Your task to perform on an android device: Search for the best coffee tables on Crate & Barrel Image 0: 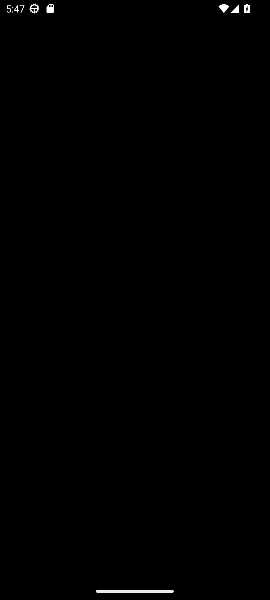
Step 0: press home button
Your task to perform on an android device: Search for the best coffee tables on Crate & Barrel Image 1: 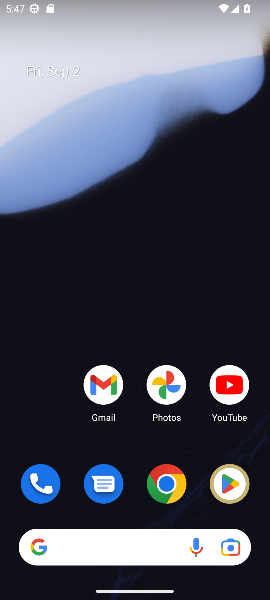
Step 1: click (166, 482)
Your task to perform on an android device: Search for the best coffee tables on Crate & Barrel Image 2: 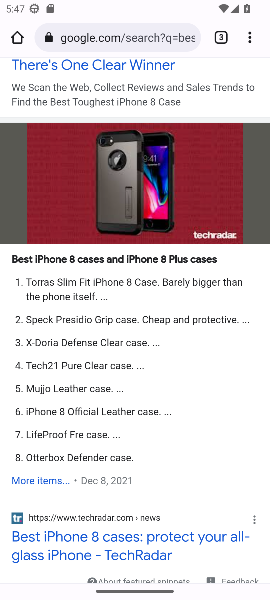
Step 2: click (167, 36)
Your task to perform on an android device: Search for the best coffee tables on Crate & Barrel Image 3: 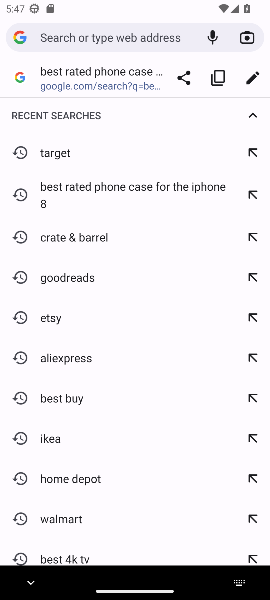
Step 3: type " Crate & Barrel"
Your task to perform on an android device: Search for the best coffee tables on Crate & Barrel Image 4: 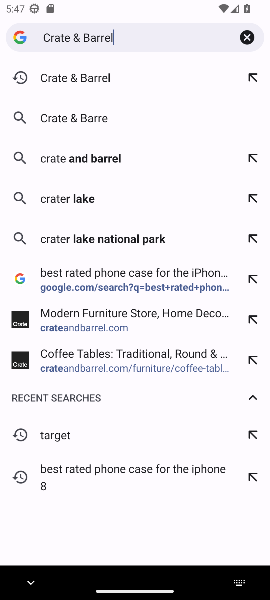
Step 4: press enter
Your task to perform on an android device: Search for the best coffee tables on Crate & Barrel Image 5: 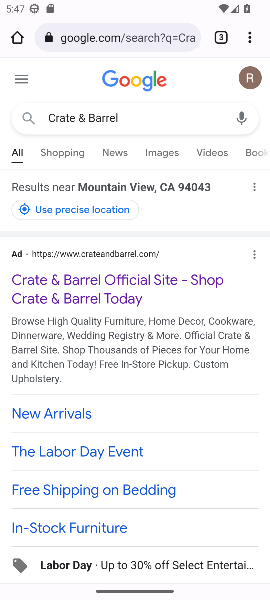
Step 5: drag from (129, 416) to (207, 177)
Your task to perform on an android device: Search for the best coffee tables on Crate & Barrel Image 6: 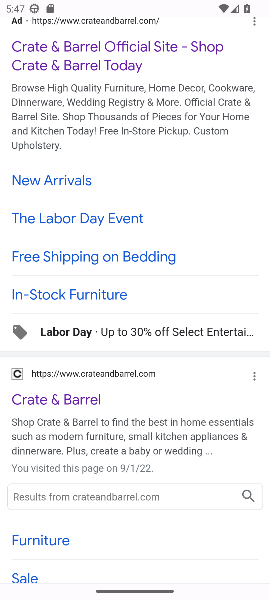
Step 6: click (65, 395)
Your task to perform on an android device: Search for the best coffee tables on Crate & Barrel Image 7: 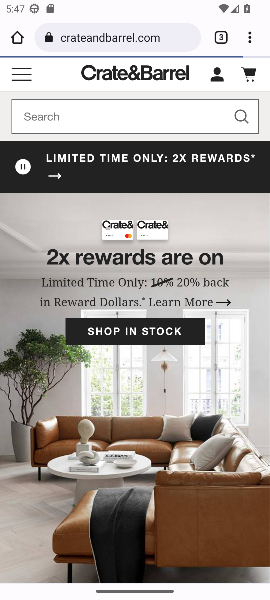
Step 7: click (127, 113)
Your task to perform on an android device: Search for the best coffee tables on Crate & Barrel Image 8: 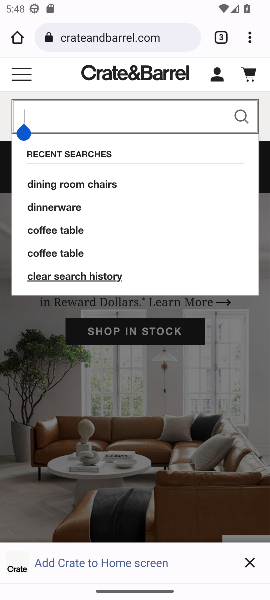
Step 8: type "best coffee tables"
Your task to perform on an android device: Search for the best coffee tables on Crate & Barrel Image 9: 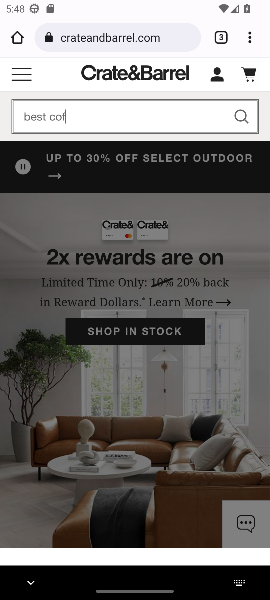
Step 9: press enter
Your task to perform on an android device: Search for the best coffee tables on Crate & Barrel Image 10: 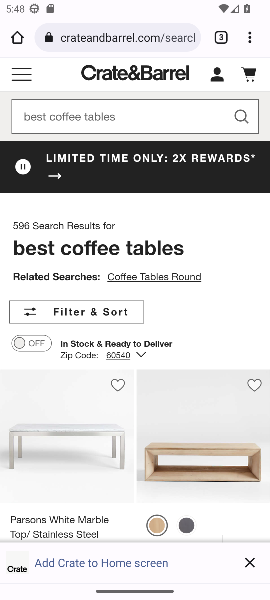
Step 10: click (251, 557)
Your task to perform on an android device: Search for the best coffee tables on Crate & Barrel Image 11: 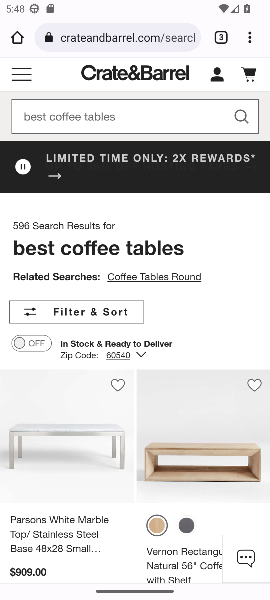
Step 11: task complete